Your task to perform on an android device: Go to Yahoo.com Image 0: 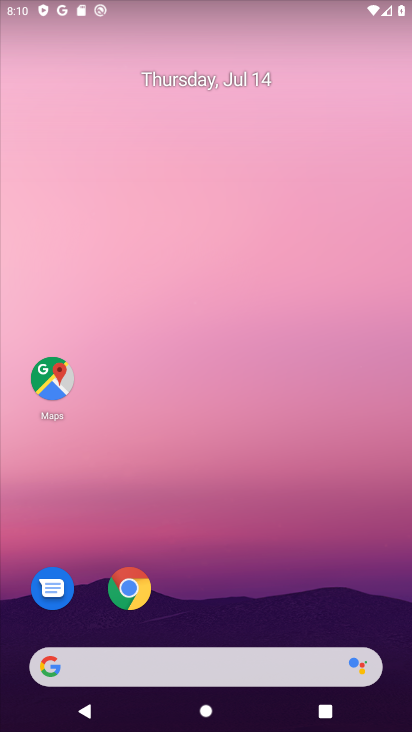
Step 0: drag from (253, 656) to (235, 193)
Your task to perform on an android device: Go to Yahoo.com Image 1: 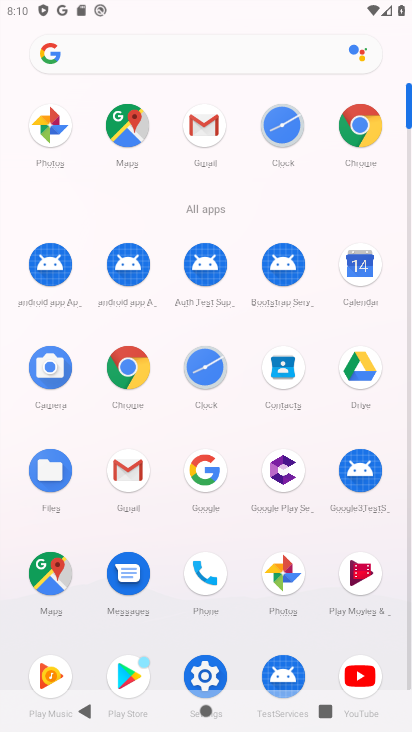
Step 1: click (347, 132)
Your task to perform on an android device: Go to Yahoo.com Image 2: 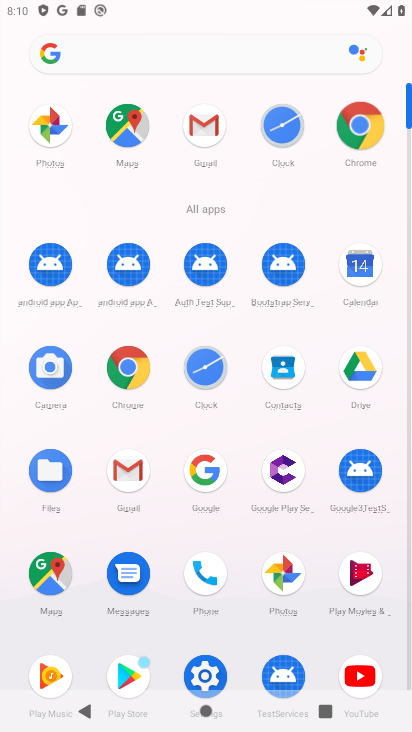
Step 2: click (353, 134)
Your task to perform on an android device: Go to Yahoo.com Image 3: 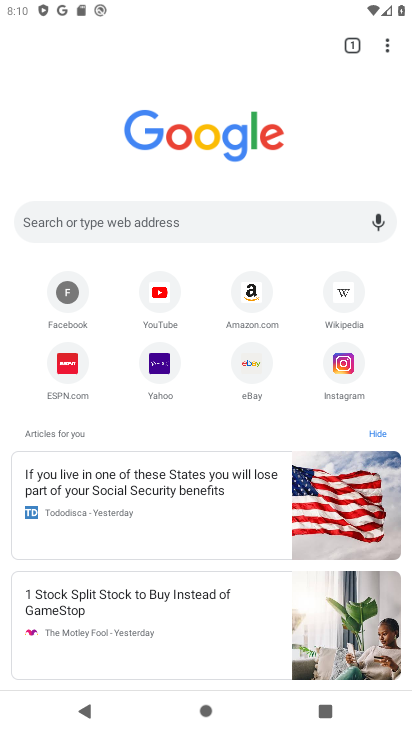
Step 3: click (157, 372)
Your task to perform on an android device: Go to Yahoo.com Image 4: 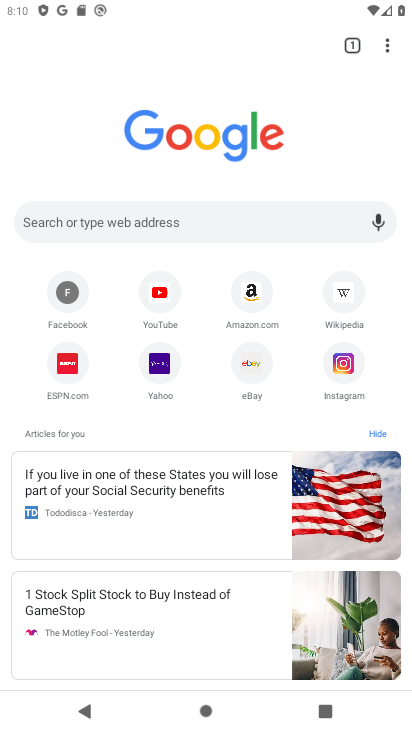
Step 4: click (155, 370)
Your task to perform on an android device: Go to Yahoo.com Image 5: 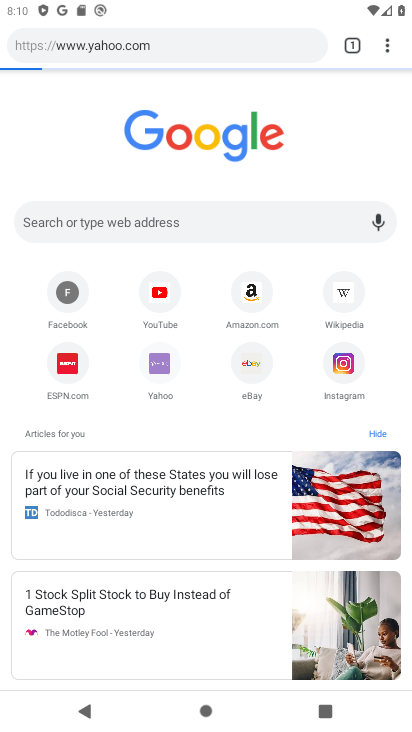
Step 5: click (153, 368)
Your task to perform on an android device: Go to Yahoo.com Image 6: 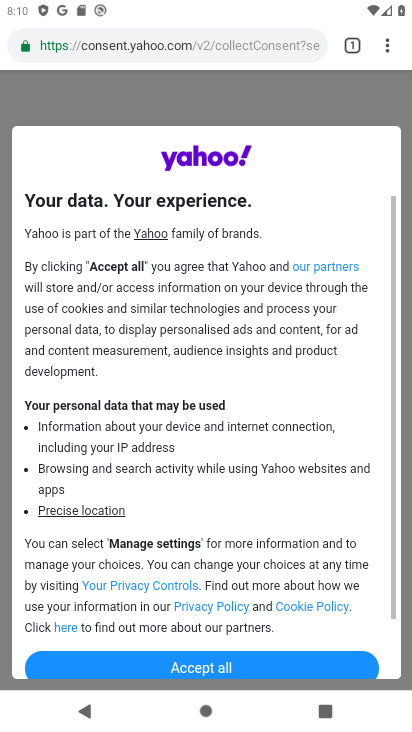
Step 6: task complete